Your task to perform on an android device: Set the phone to "Do not disturb". Image 0: 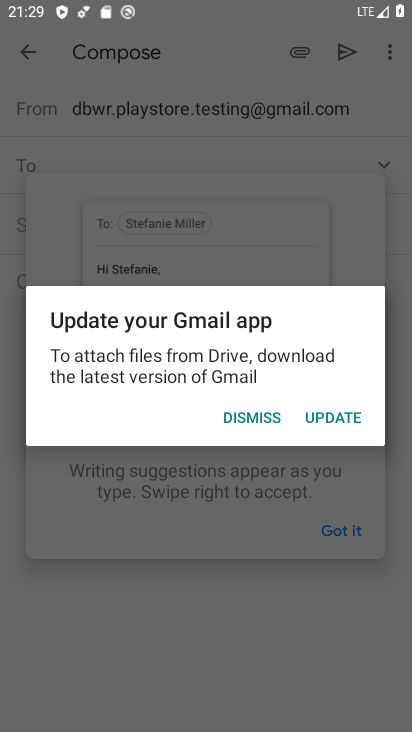
Step 0: drag from (172, 8) to (210, 635)
Your task to perform on an android device: Set the phone to "Do not disturb". Image 1: 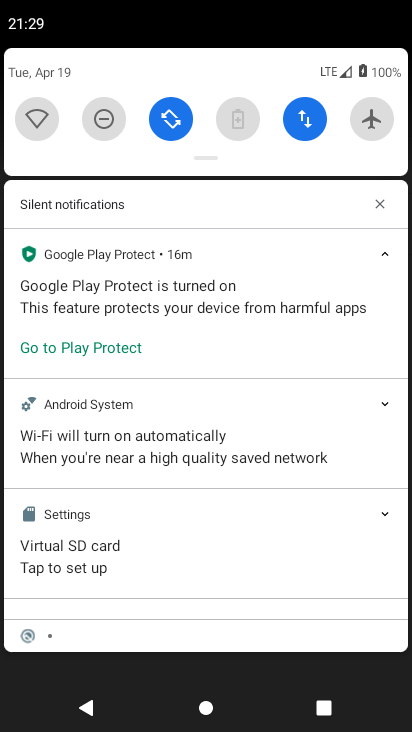
Step 1: click (111, 123)
Your task to perform on an android device: Set the phone to "Do not disturb". Image 2: 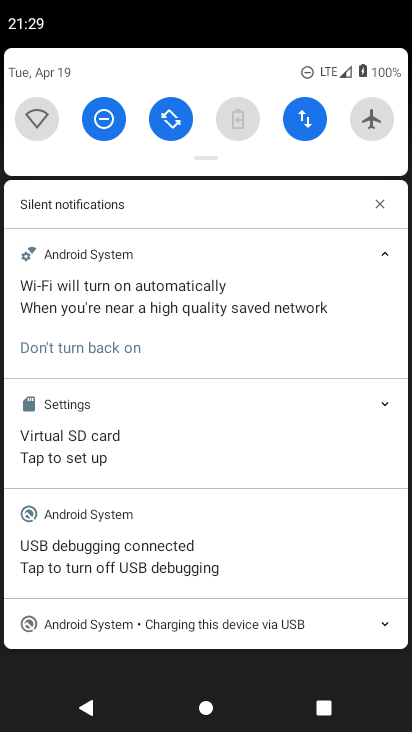
Step 2: task complete